Your task to perform on an android device: uninstall "VLC for Android" Image 0: 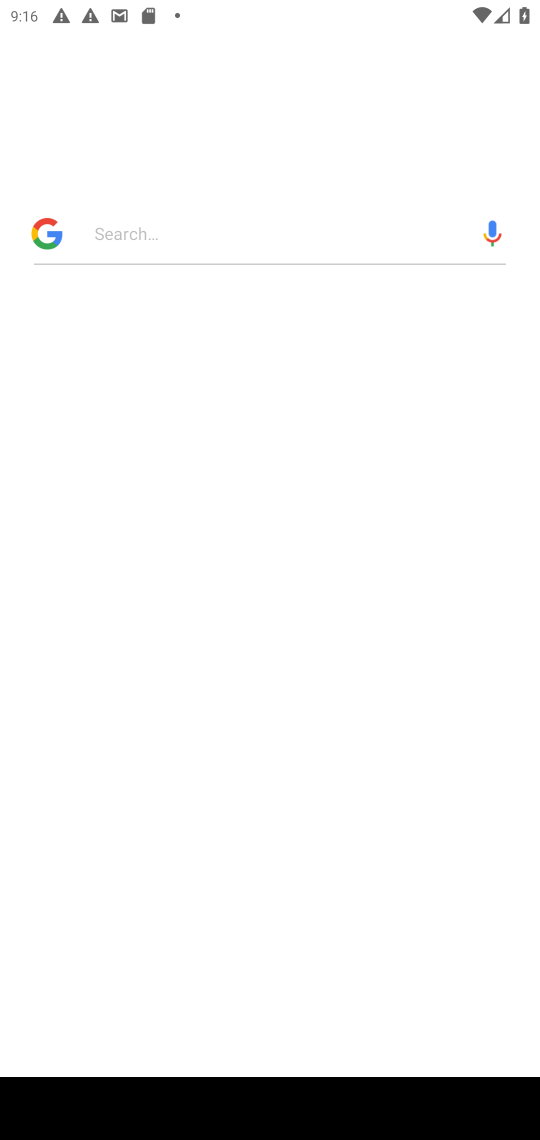
Step 0: press home button
Your task to perform on an android device: uninstall "VLC for Android" Image 1: 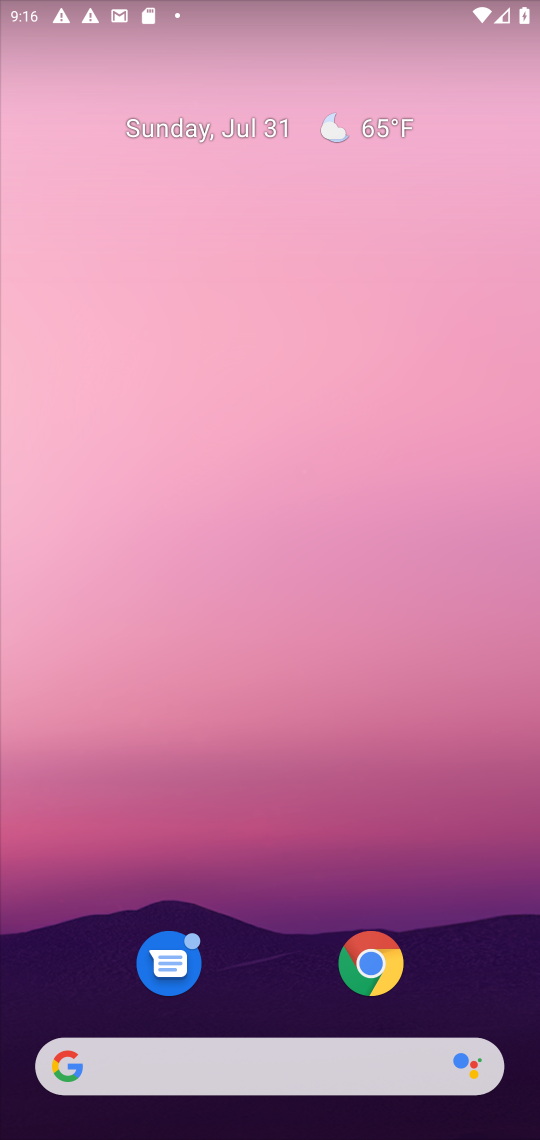
Step 1: drag from (258, 966) to (291, 178)
Your task to perform on an android device: uninstall "VLC for Android" Image 2: 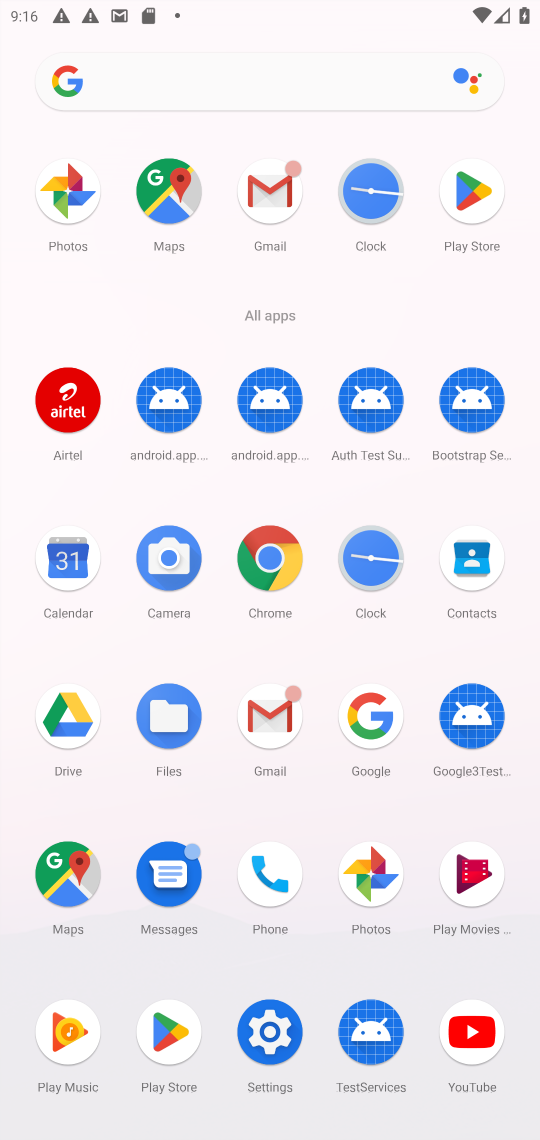
Step 2: click (173, 1022)
Your task to perform on an android device: uninstall "VLC for Android" Image 3: 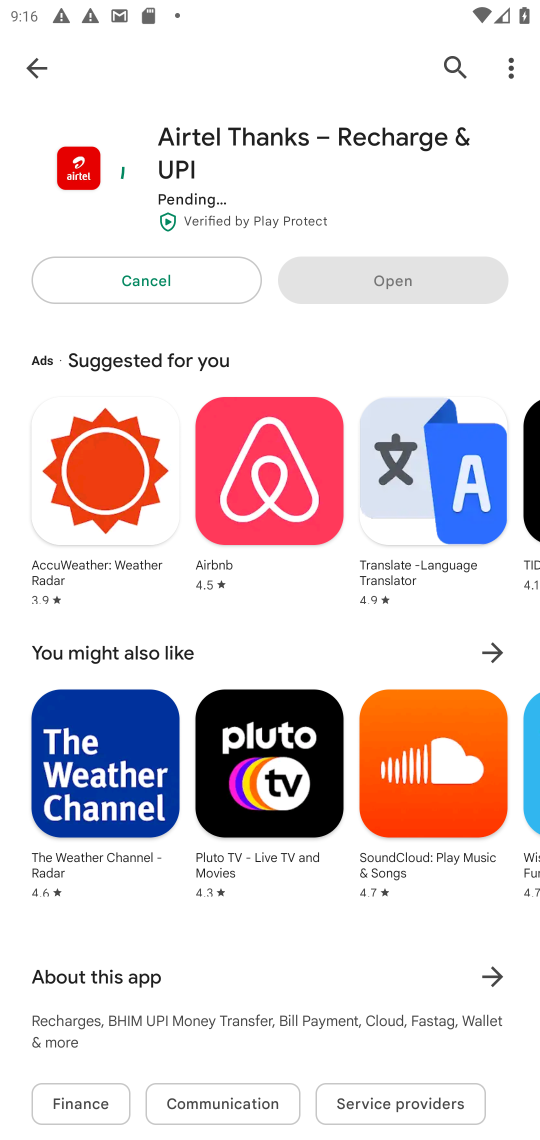
Step 3: click (450, 48)
Your task to perform on an android device: uninstall "VLC for Android" Image 4: 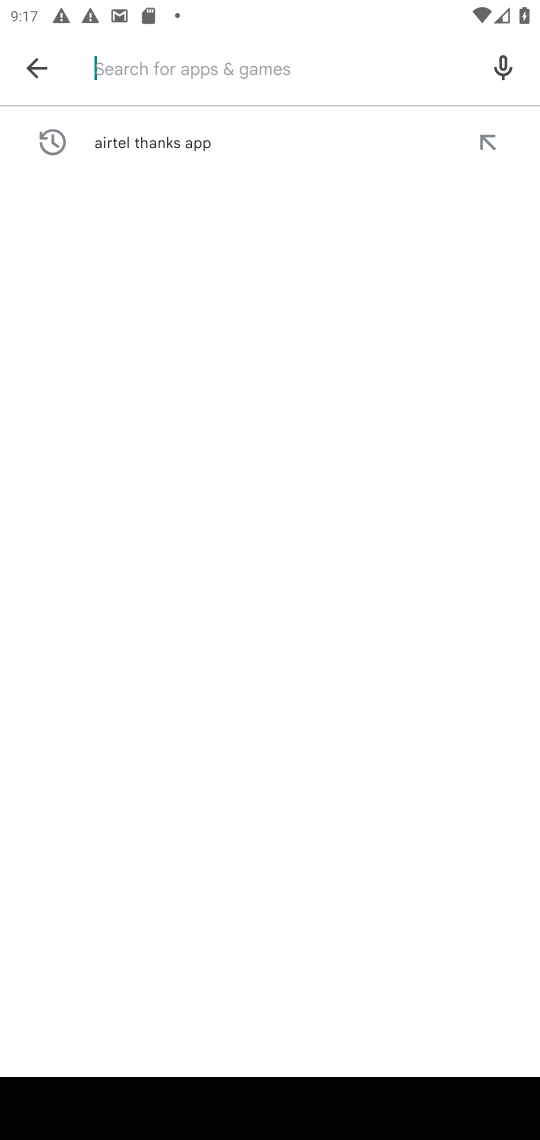
Step 4: type "VLC for android"
Your task to perform on an android device: uninstall "VLC for Android" Image 5: 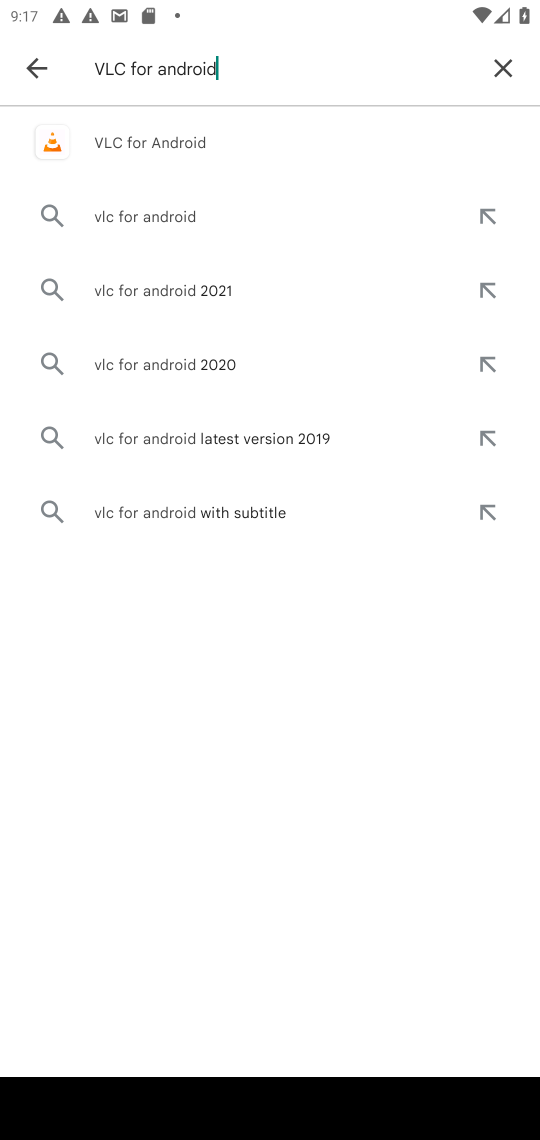
Step 5: click (138, 132)
Your task to perform on an android device: uninstall "VLC for Android" Image 6: 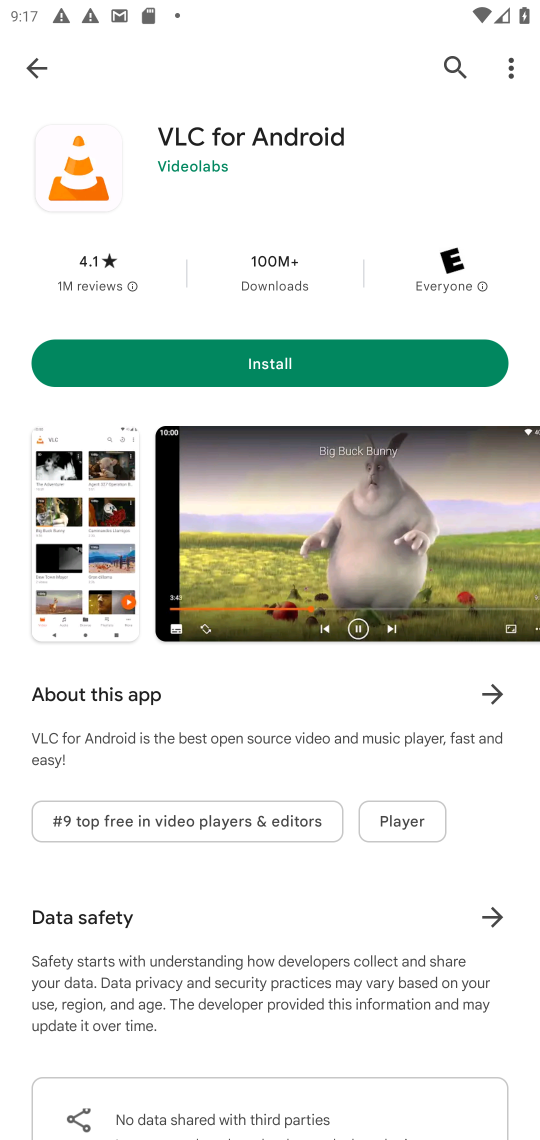
Step 6: task complete